Your task to perform on an android device: turn on sleep mode Image 0: 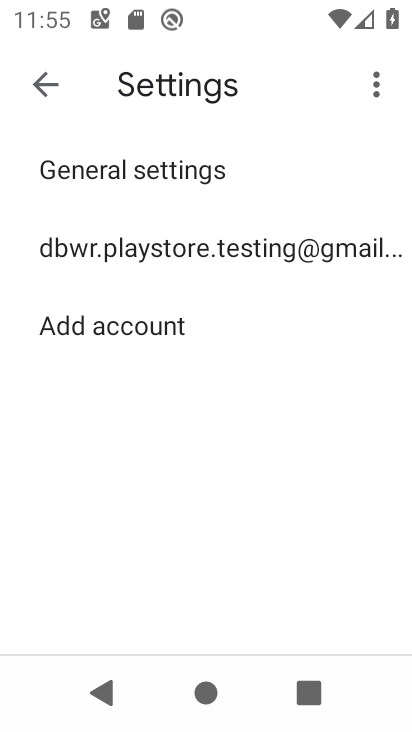
Step 0: press home button
Your task to perform on an android device: turn on sleep mode Image 1: 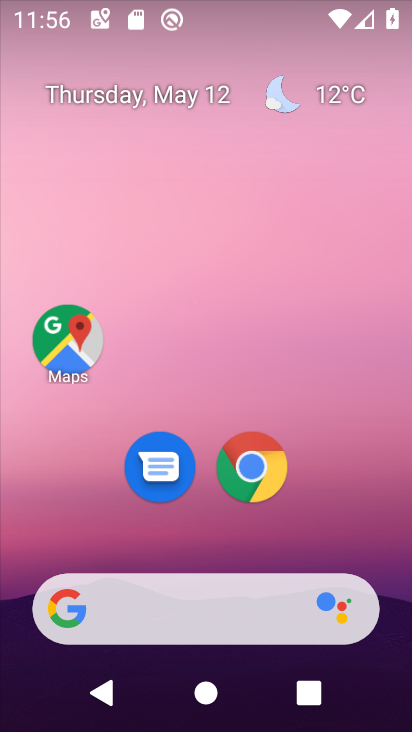
Step 1: drag from (338, 463) to (208, 39)
Your task to perform on an android device: turn on sleep mode Image 2: 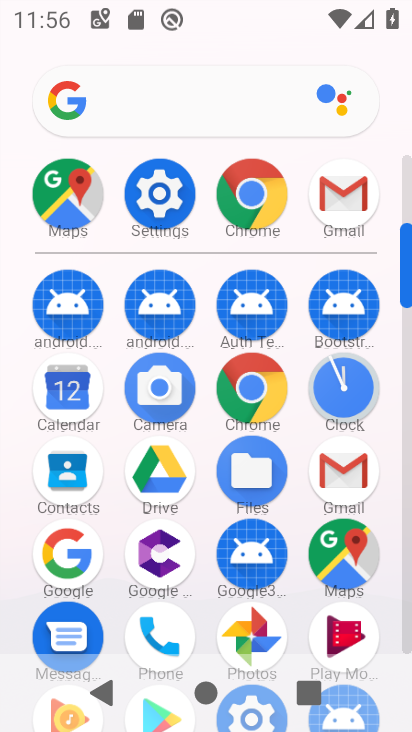
Step 2: click (178, 189)
Your task to perform on an android device: turn on sleep mode Image 3: 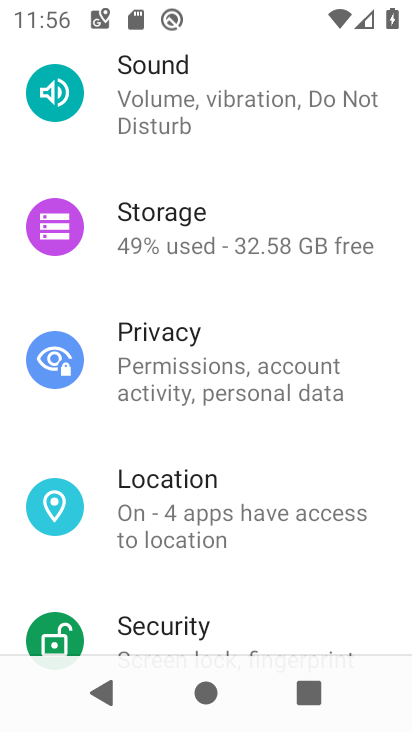
Step 3: drag from (225, 207) to (211, 594)
Your task to perform on an android device: turn on sleep mode Image 4: 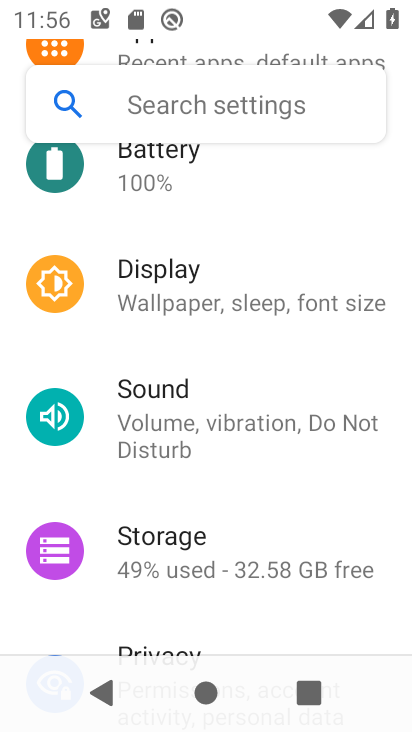
Step 4: click (197, 293)
Your task to perform on an android device: turn on sleep mode Image 5: 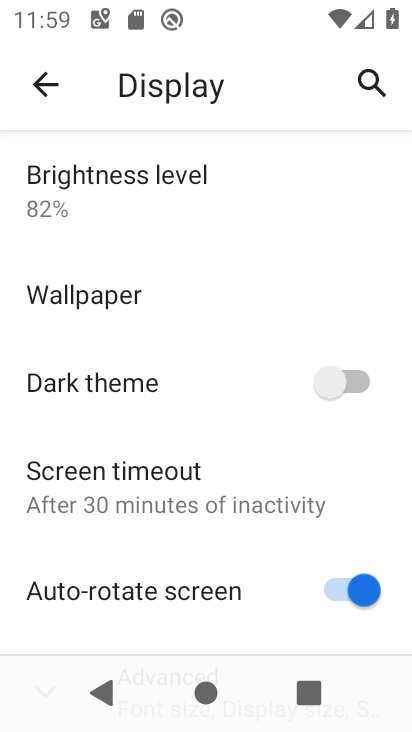
Step 5: task complete